Your task to perform on an android device: set the stopwatch Image 0: 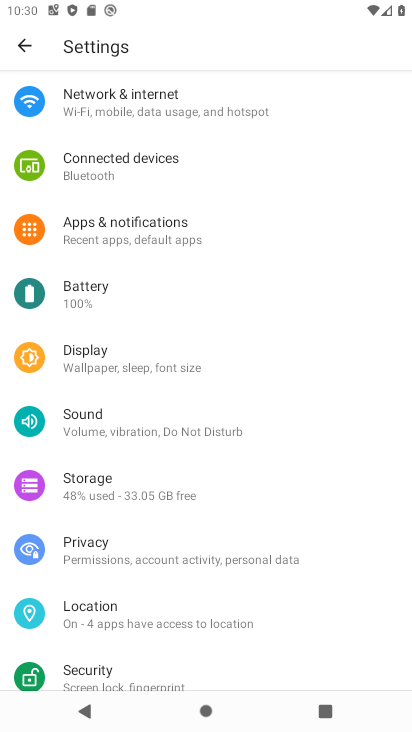
Step 0: press home button
Your task to perform on an android device: set the stopwatch Image 1: 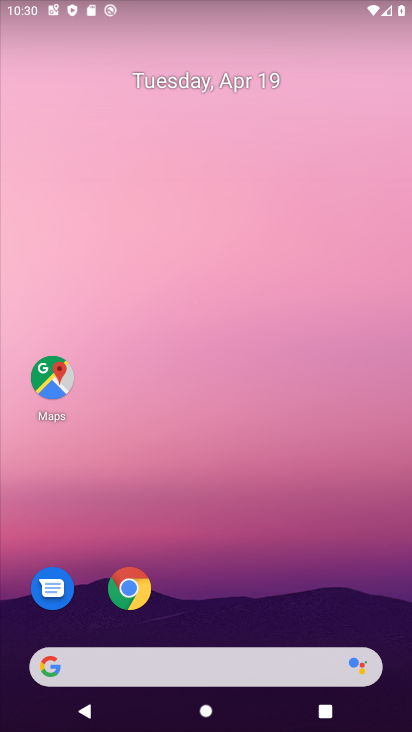
Step 1: drag from (191, 616) to (128, 136)
Your task to perform on an android device: set the stopwatch Image 2: 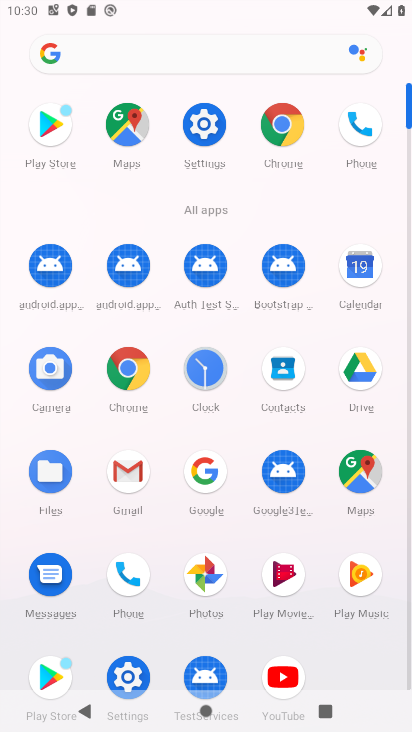
Step 2: click (195, 357)
Your task to perform on an android device: set the stopwatch Image 3: 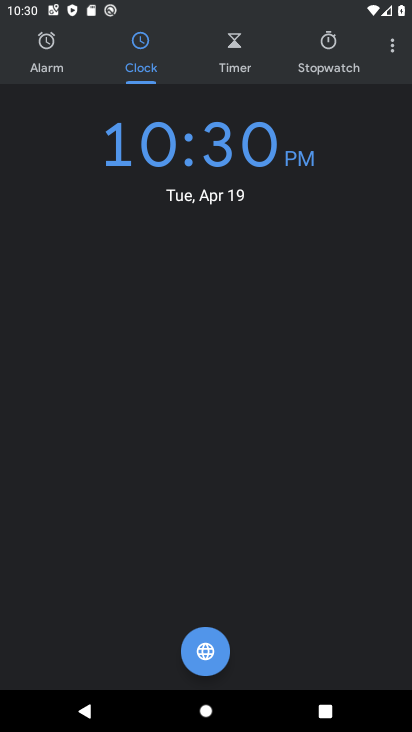
Step 3: click (343, 57)
Your task to perform on an android device: set the stopwatch Image 4: 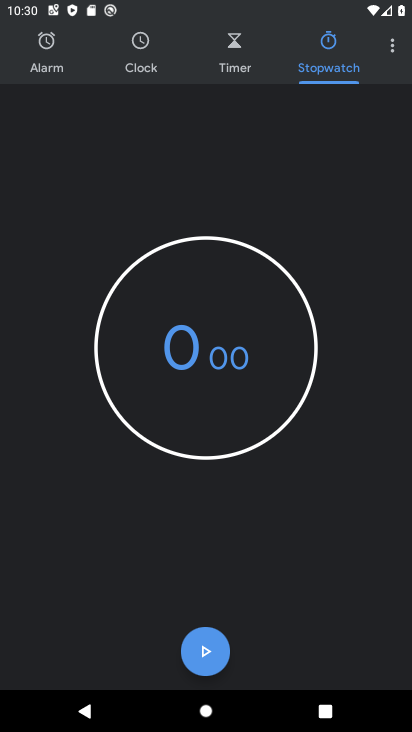
Step 4: click (222, 638)
Your task to perform on an android device: set the stopwatch Image 5: 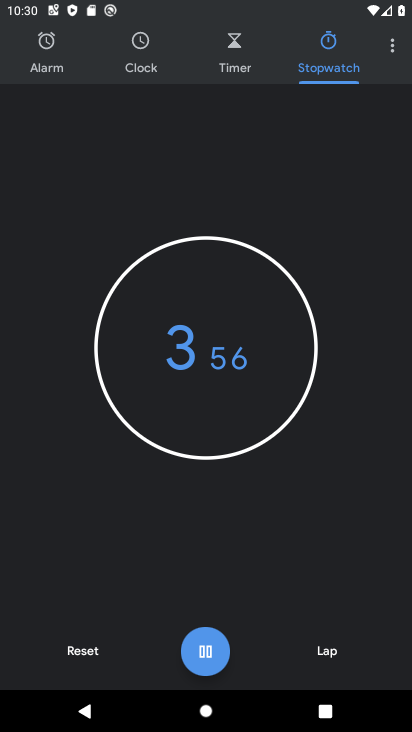
Step 5: task complete